Your task to perform on an android device: change text size in settings app Image 0: 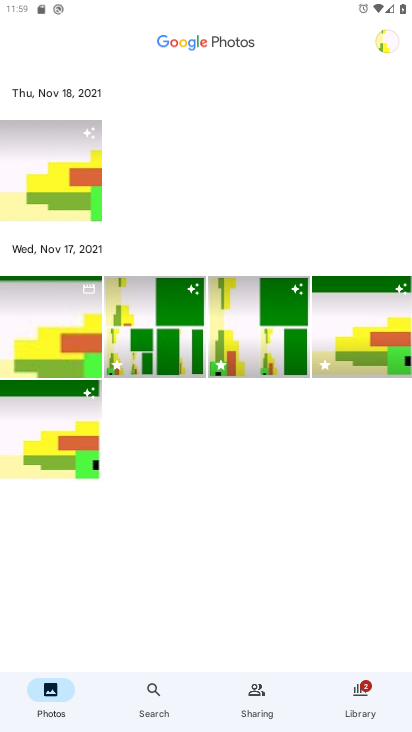
Step 0: press home button
Your task to perform on an android device: change text size in settings app Image 1: 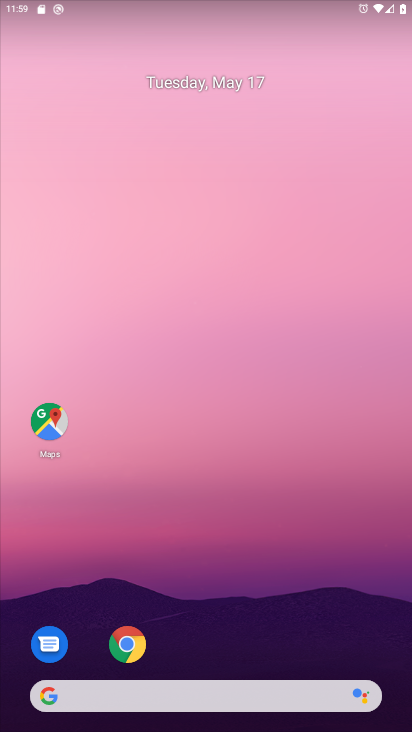
Step 1: drag from (203, 650) to (192, 112)
Your task to perform on an android device: change text size in settings app Image 2: 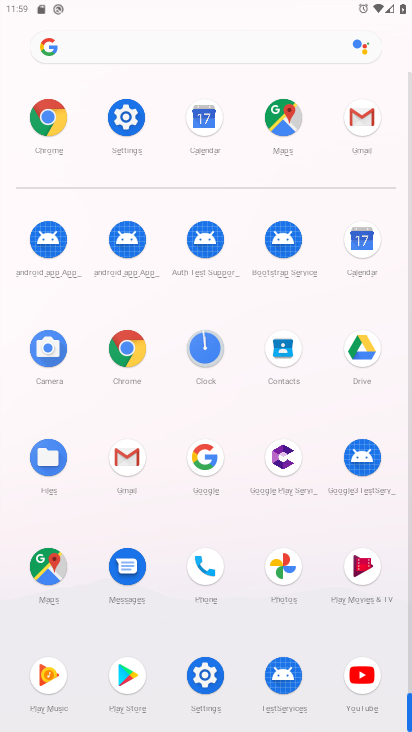
Step 2: click (127, 113)
Your task to perform on an android device: change text size in settings app Image 3: 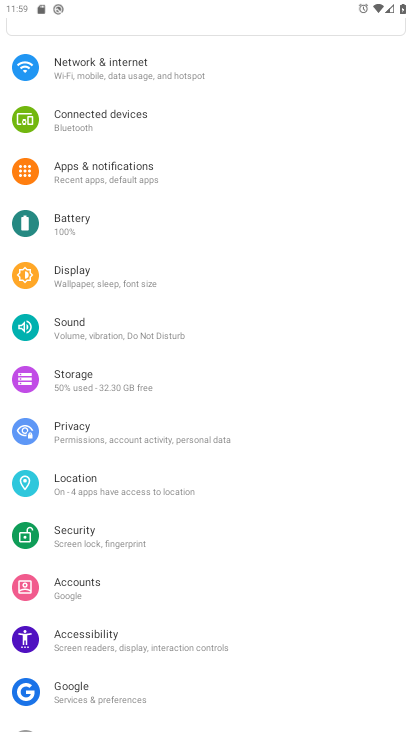
Step 3: click (77, 263)
Your task to perform on an android device: change text size in settings app Image 4: 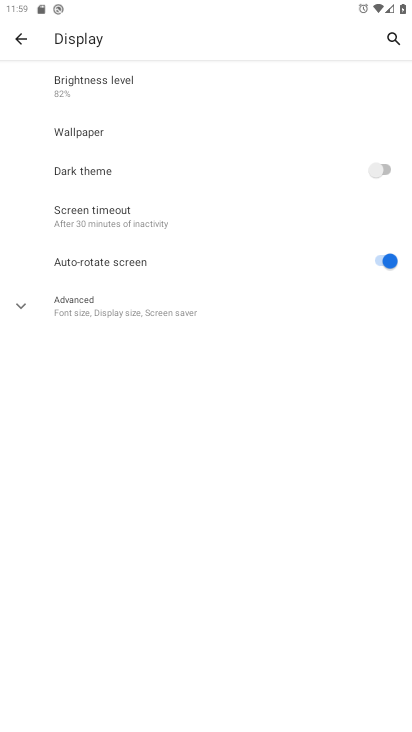
Step 4: click (41, 303)
Your task to perform on an android device: change text size in settings app Image 5: 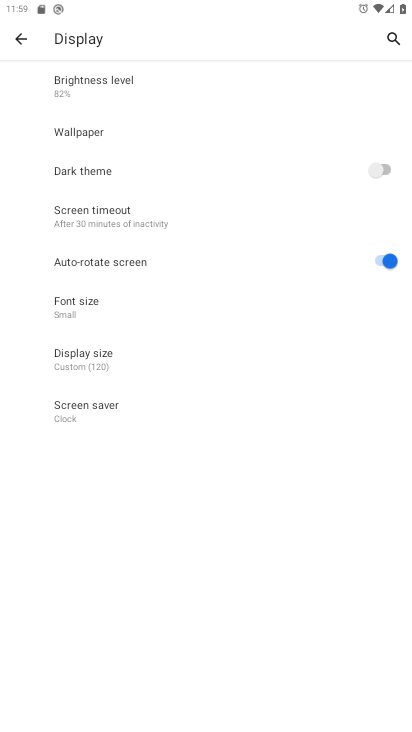
Step 5: click (79, 312)
Your task to perform on an android device: change text size in settings app Image 6: 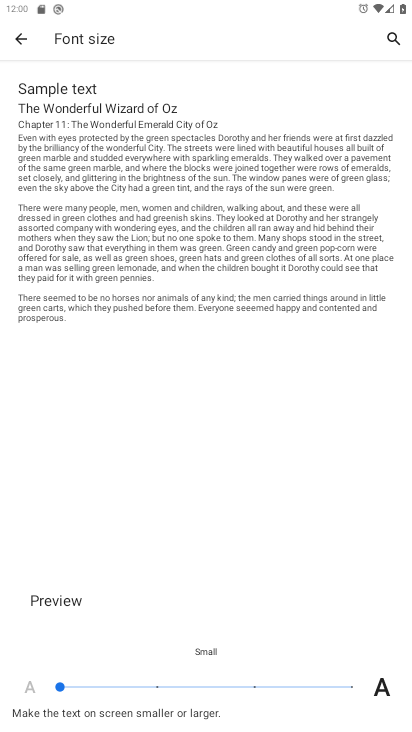
Step 6: click (156, 685)
Your task to perform on an android device: change text size in settings app Image 7: 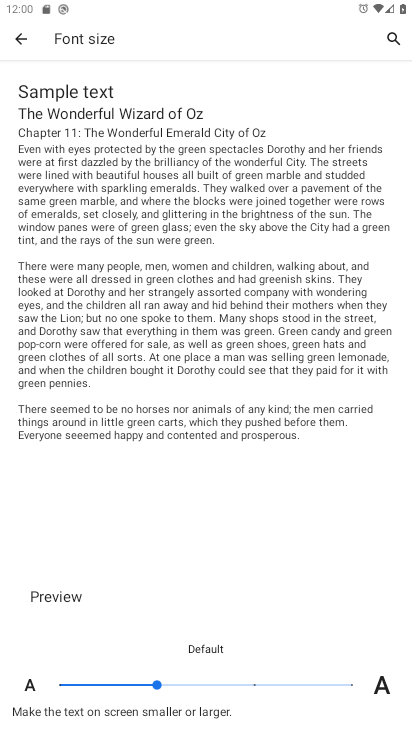
Step 7: task complete